Your task to perform on an android device: check google app version Image 0: 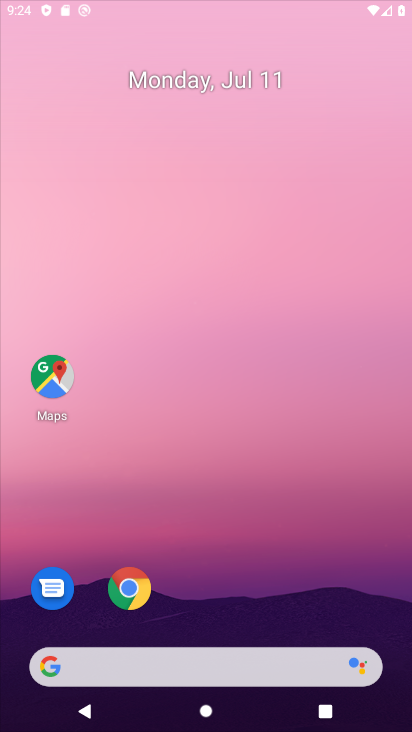
Step 0: drag from (248, 584) to (250, 428)
Your task to perform on an android device: check google app version Image 1: 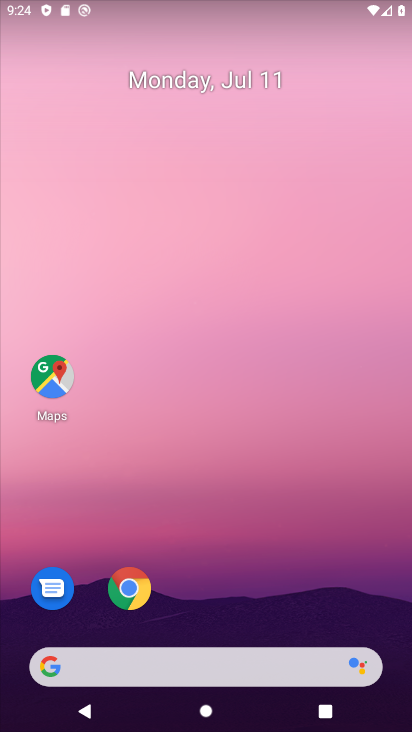
Step 1: drag from (255, 609) to (295, 65)
Your task to perform on an android device: check google app version Image 2: 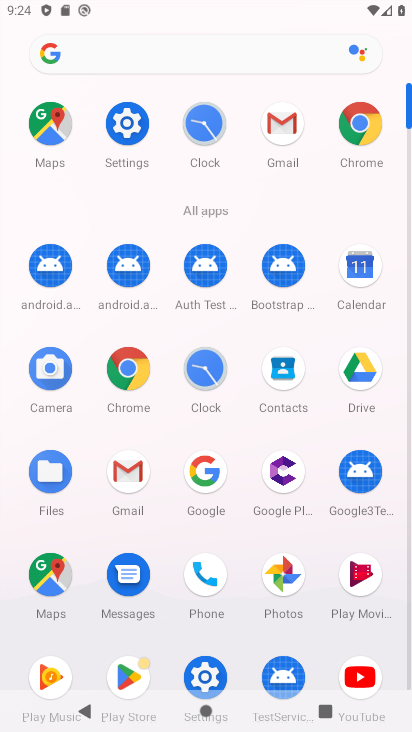
Step 2: click (194, 473)
Your task to perform on an android device: check google app version Image 3: 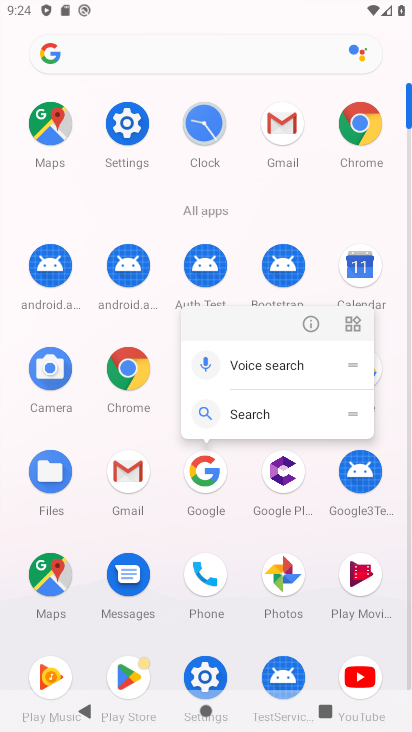
Step 3: click (312, 326)
Your task to perform on an android device: check google app version Image 4: 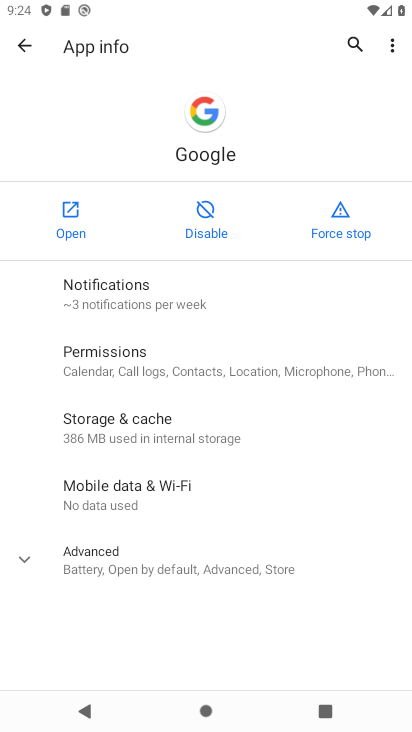
Step 4: click (147, 565)
Your task to perform on an android device: check google app version Image 5: 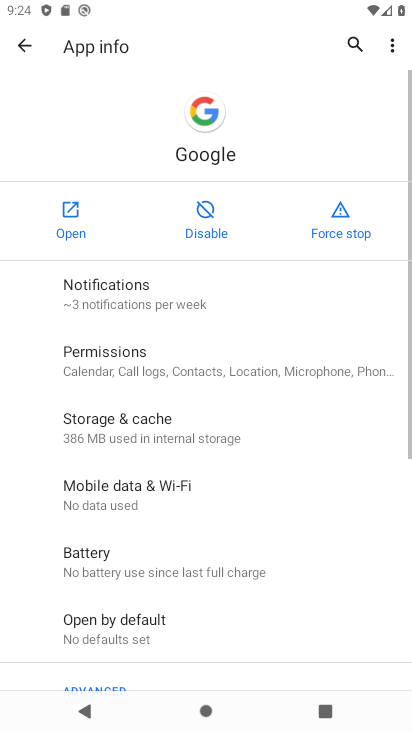
Step 5: drag from (146, 609) to (132, 141)
Your task to perform on an android device: check google app version Image 6: 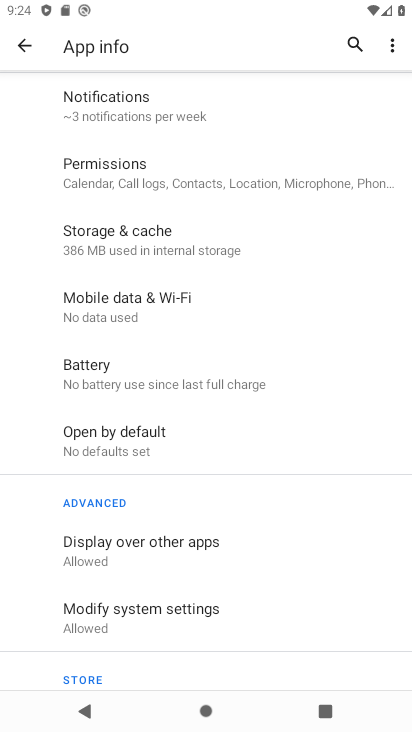
Step 6: drag from (167, 648) to (171, 246)
Your task to perform on an android device: check google app version Image 7: 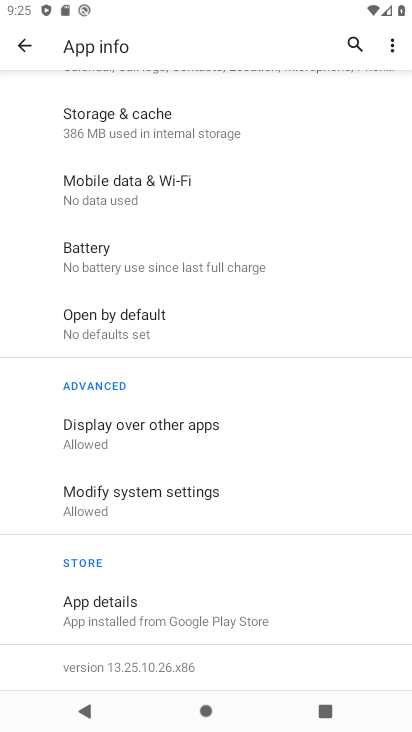
Step 7: click (175, 668)
Your task to perform on an android device: check google app version Image 8: 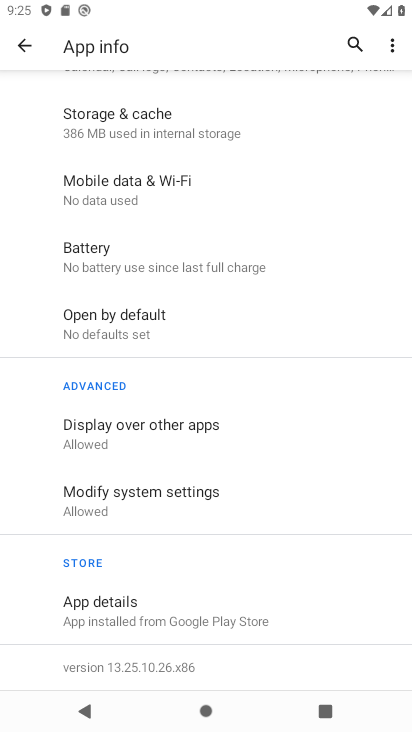
Step 8: task complete